Your task to perform on an android device: toggle wifi Image 0: 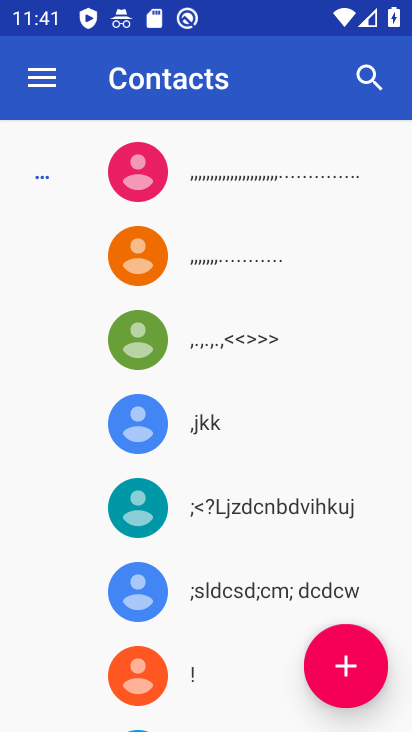
Step 0: press home button
Your task to perform on an android device: toggle wifi Image 1: 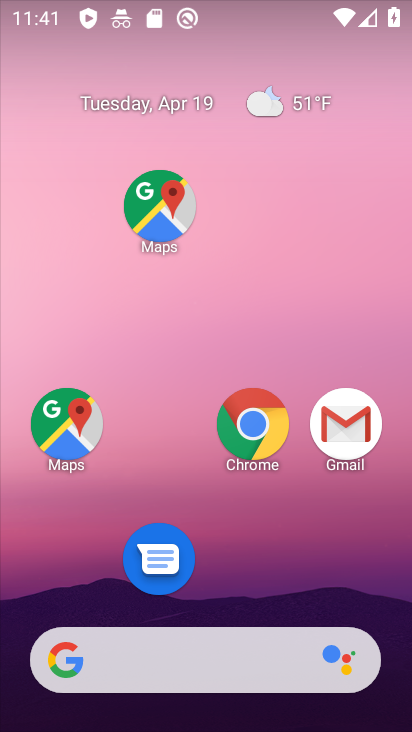
Step 1: drag from (141, 266) to (131, 113)
Your task to perform on an android device: toggle wifi Image 2: 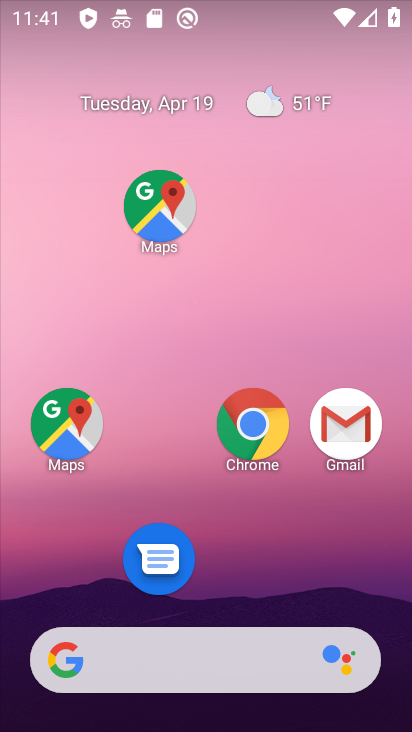
Step 2: drag from (241, 539) to (154, 142)
Your task to perform on an android device: toggle wifi Image 3: 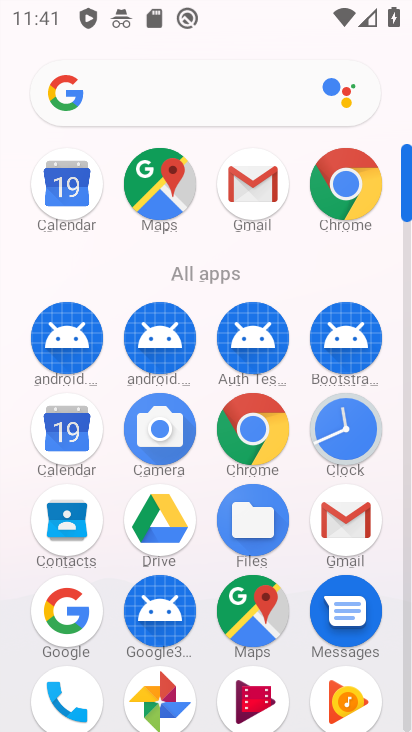
Step 3: click (342, 183)
Your task to perform on an android device: toggle wifi Image 4: 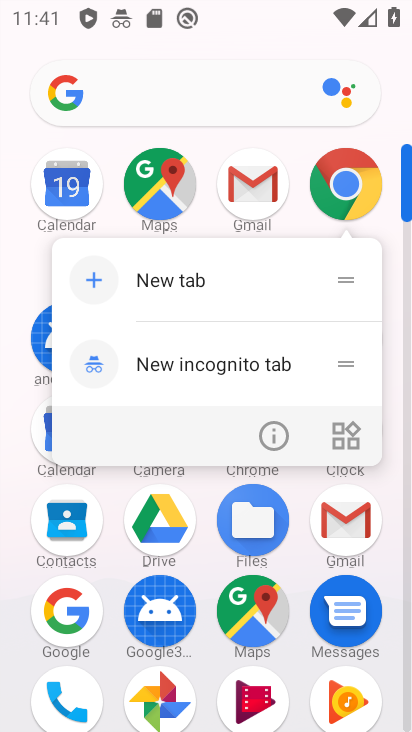
Step 4: drag from (381, 335) to (397, 375)
Your task to perform on an android device: toggle wifi Image 5: 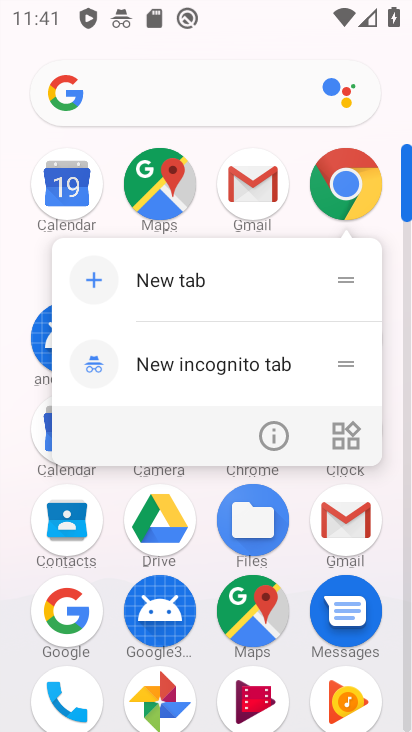
Step 5: drag from (43, 275) to (6, 244)
Your task to perform on an android device: toggle wifi Image 6: 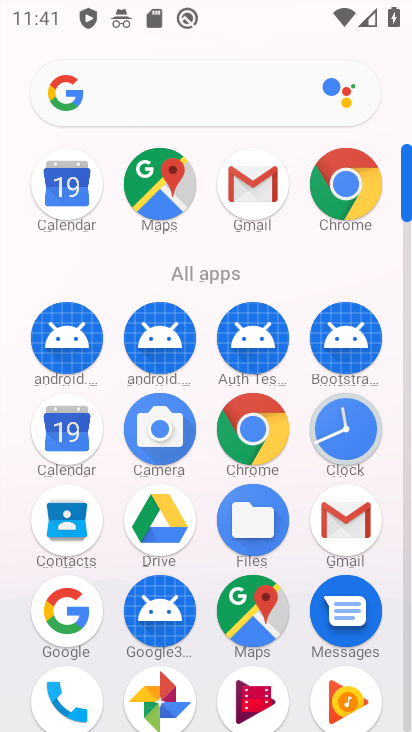
Step 6: click (6, 244)
Your task to perform on an android device: toggle wifi Image 7: 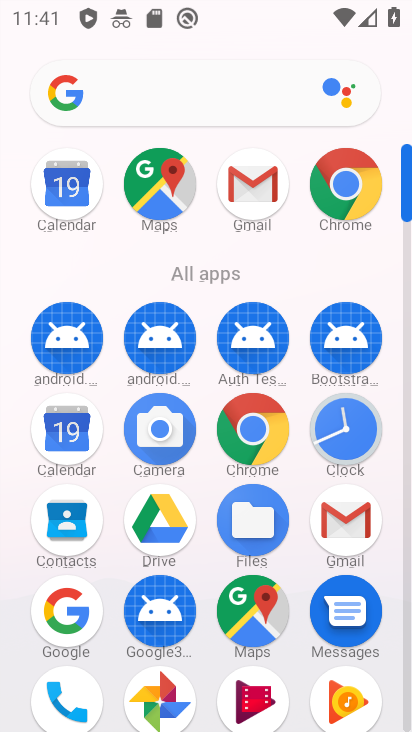
Step 7: drag from (309, 556) to (273, 99)
Your task to perform on an android device: toggle wifi Image 8: 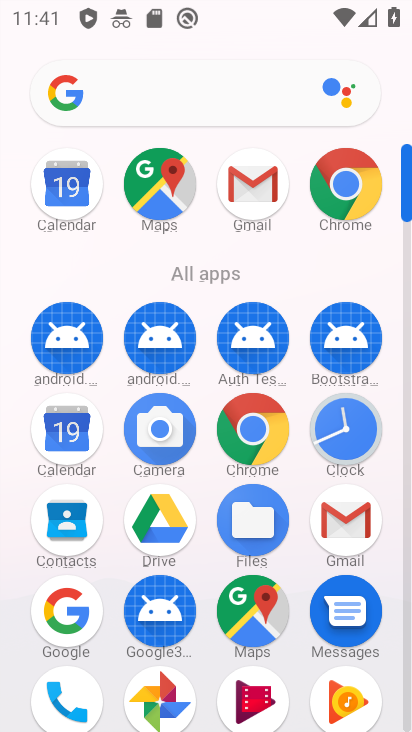
Step 8: drag from (257, 521) to (170, 152)
Your task to perform on an android device: toggle wifi Image 9: 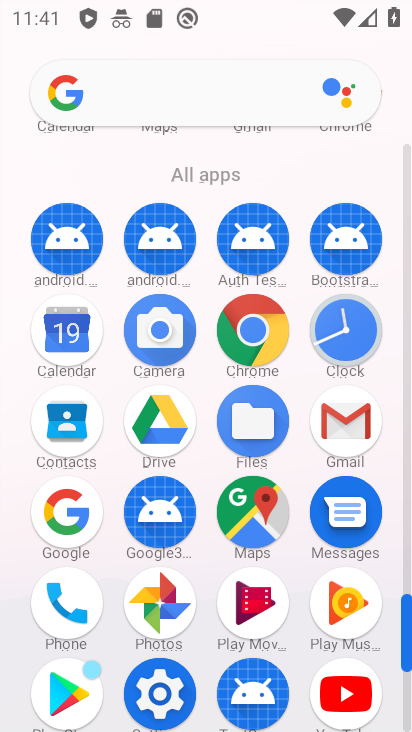
Step 9: drag from (289, 561) to (200, 132)
Your task to perform on an android device: toggle wifi Image 10: 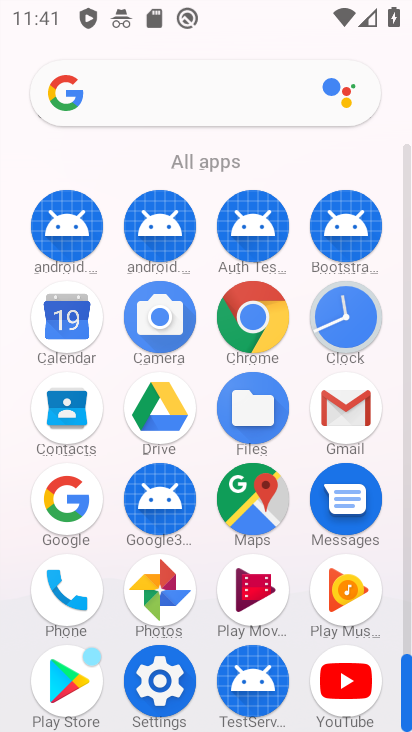
Step 10: click (156, 675)
Your task to perform on an android device: toggle wifi Image 11: 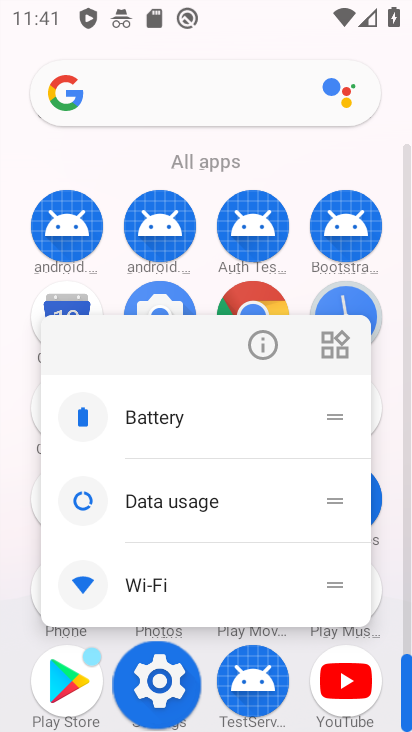
Step 11: click (151, 682)
Your task to perform on an android device: toggle wifi Image 12: 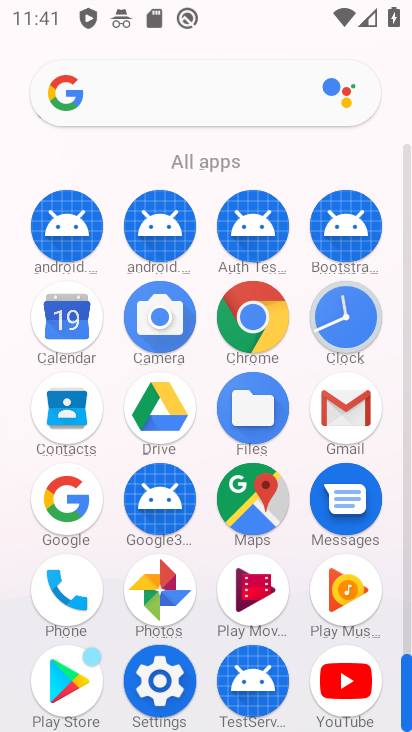
Step 12: click (145, 696)
Your task to perform on an android device: toggle wifi Image 13: 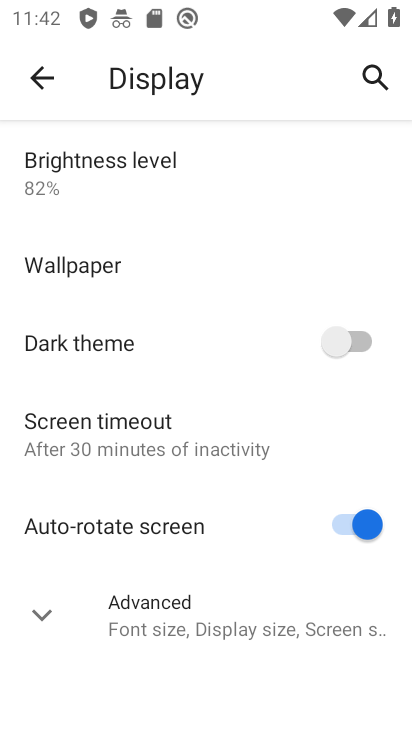
Step 13: click (36, 83)
Your task to perform on an android device: toggle wifi Image 14: 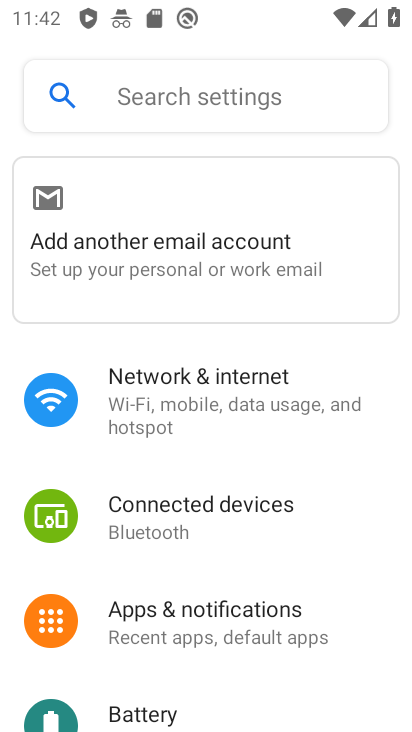
Step 14: click (210, 393)
Your task to perform on an android device: toggle wifi Image 15: 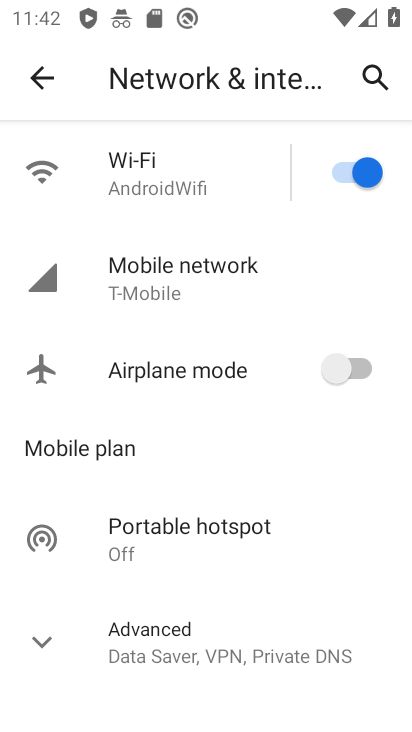
Step 15: click (352, 164)
Your task to perform on an android device: toggle wifi Image 16: 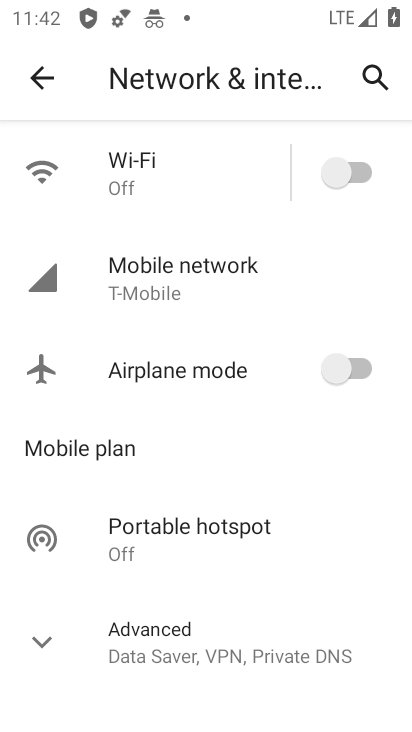
Step 16: task complete